Your task to perform on an android device: Add "usb-b" to the cart on bestbuy Image 0: 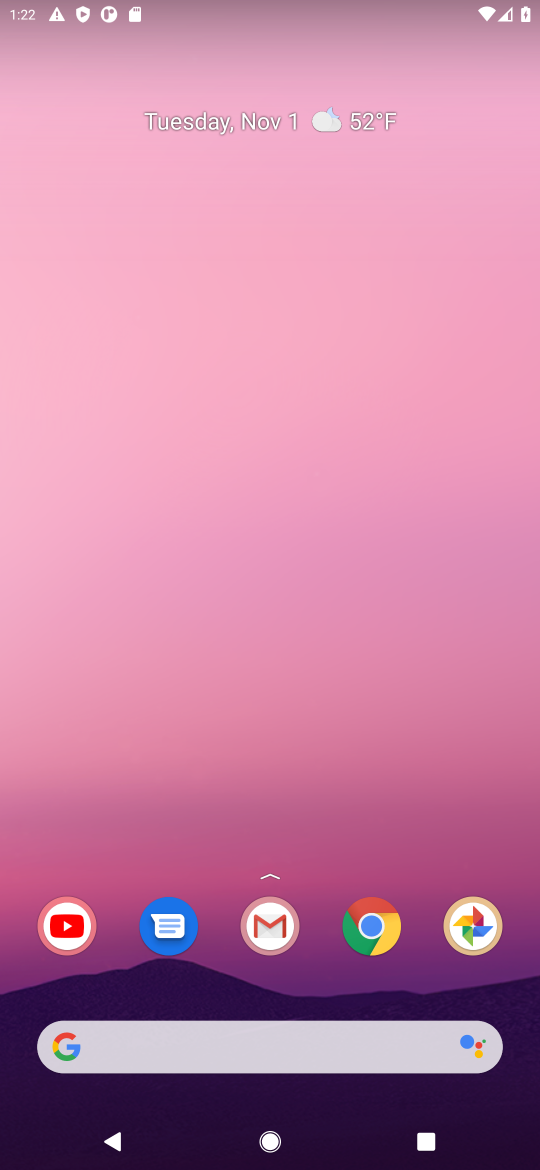
Step 0: click (353, 943)
Your task to perform on an android device: Add "usb-b" to the cart on bestbuy Image 1: 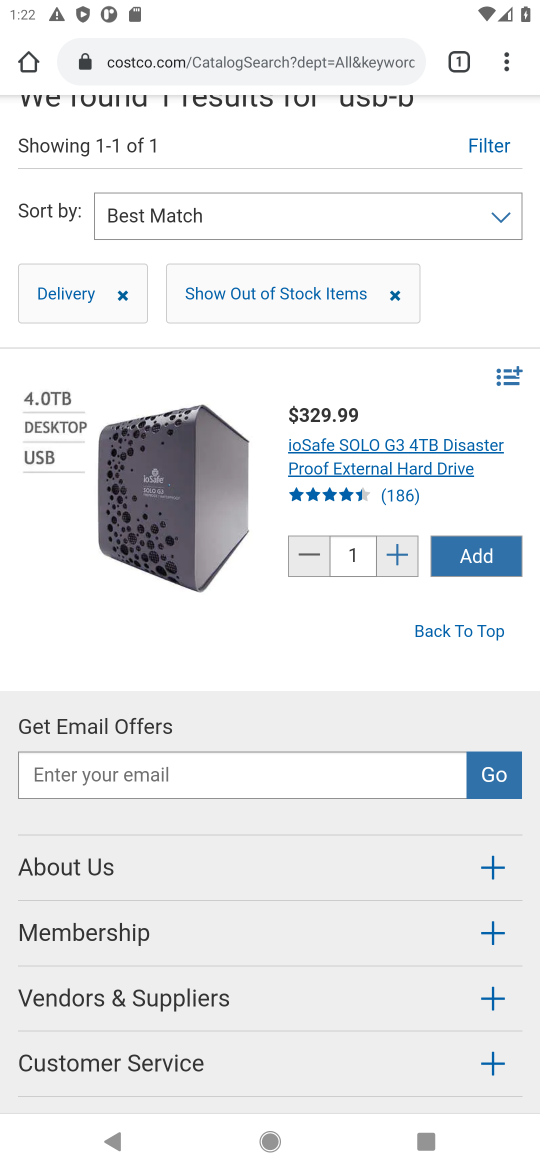
Step 1: click (276, 63)
Your task to perform on an android device: Add "usb-b" to the cart on bestbuy Image 2: 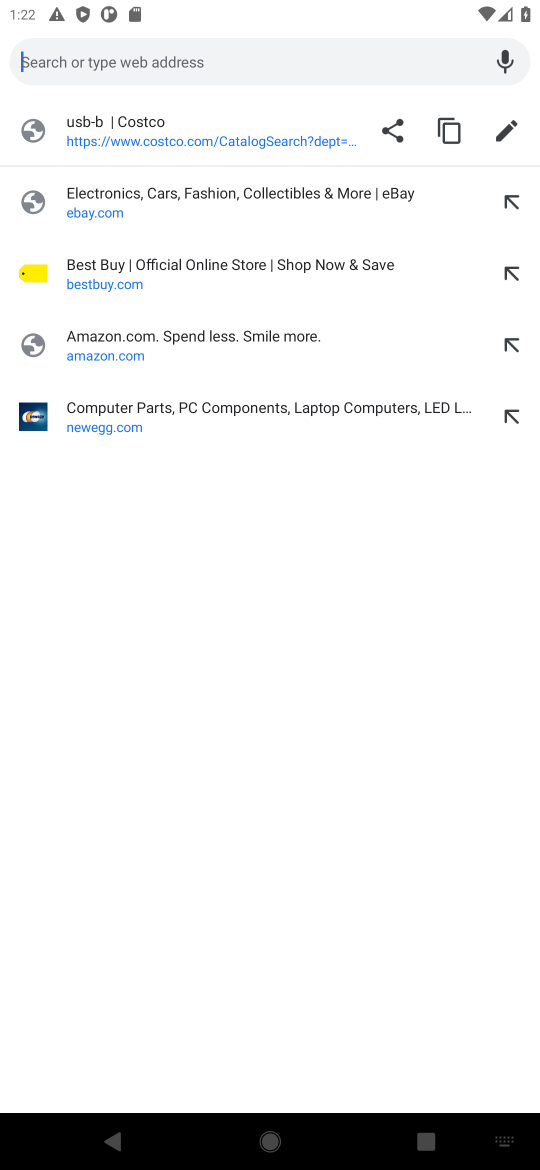
Step 2: type "bestbuy"
Your task to perform on an android device: Add "usb-b" to the cart on bestbuy Image 3: 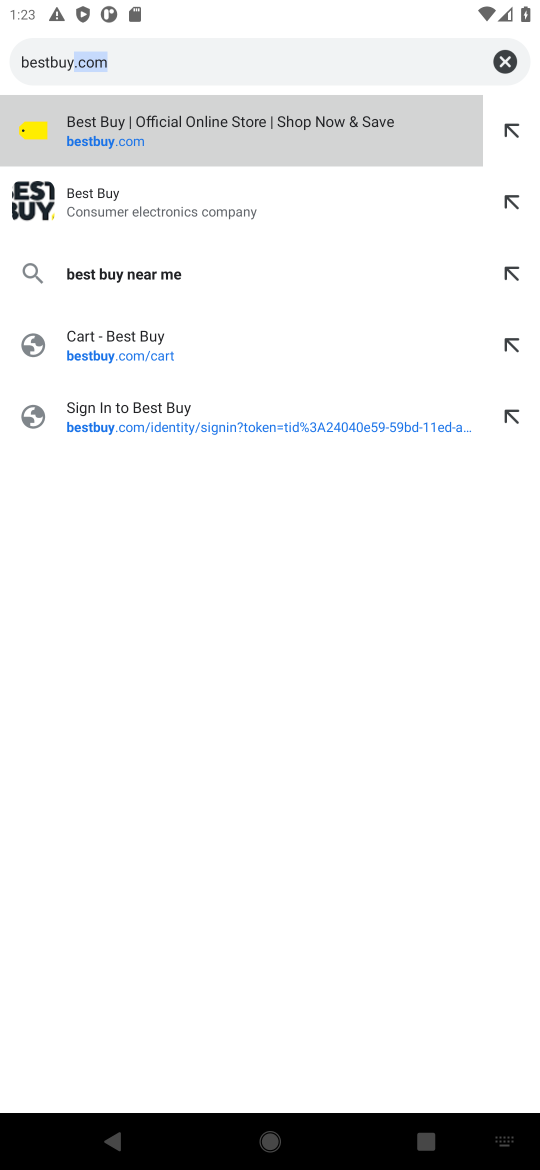
Step 3: press enter
Your task to perform on an android device: Add "usb-b" to the cart on bestbuy Image 4: 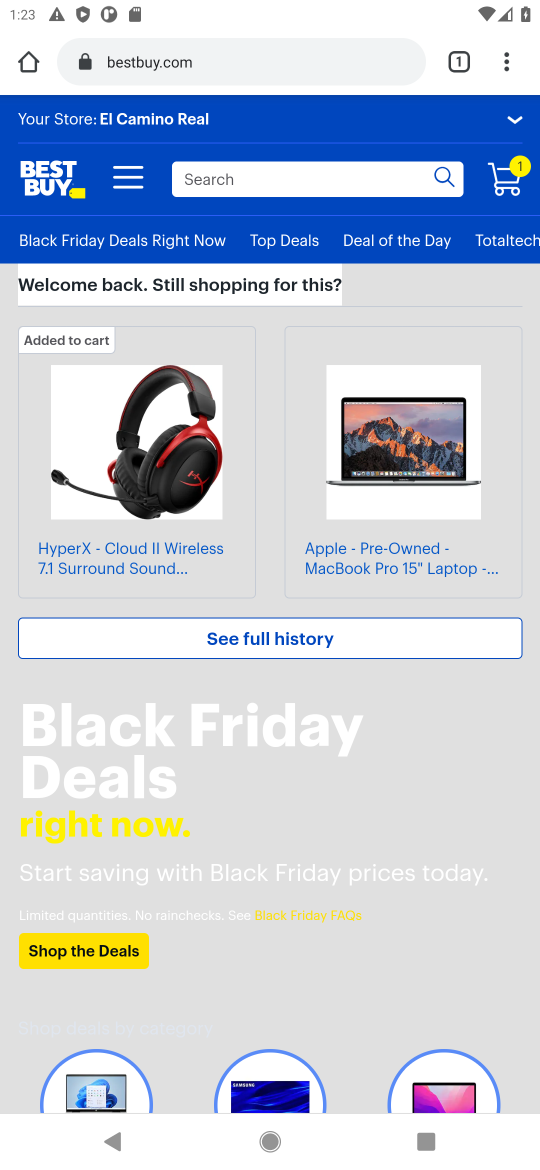
Step 4: click (313, 183)
Your task to perform on an android device: Add "usb-b" to the cart on bestbuy Image 5: 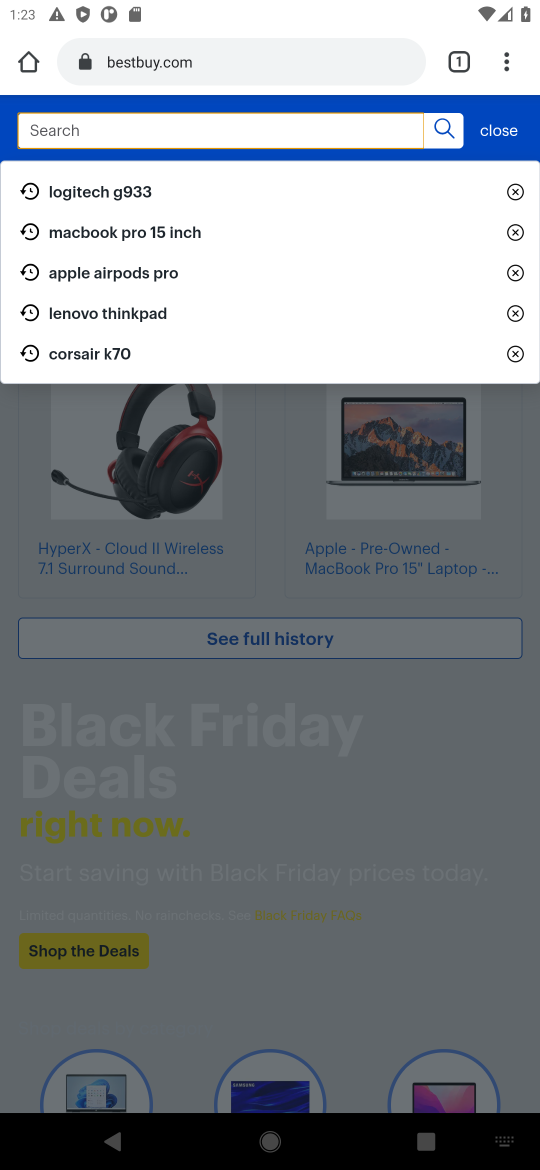
Step 5: type "usb-b"
Your task to perform on an android device: Add "usb-b" to the cart on bestbuy Image 6: 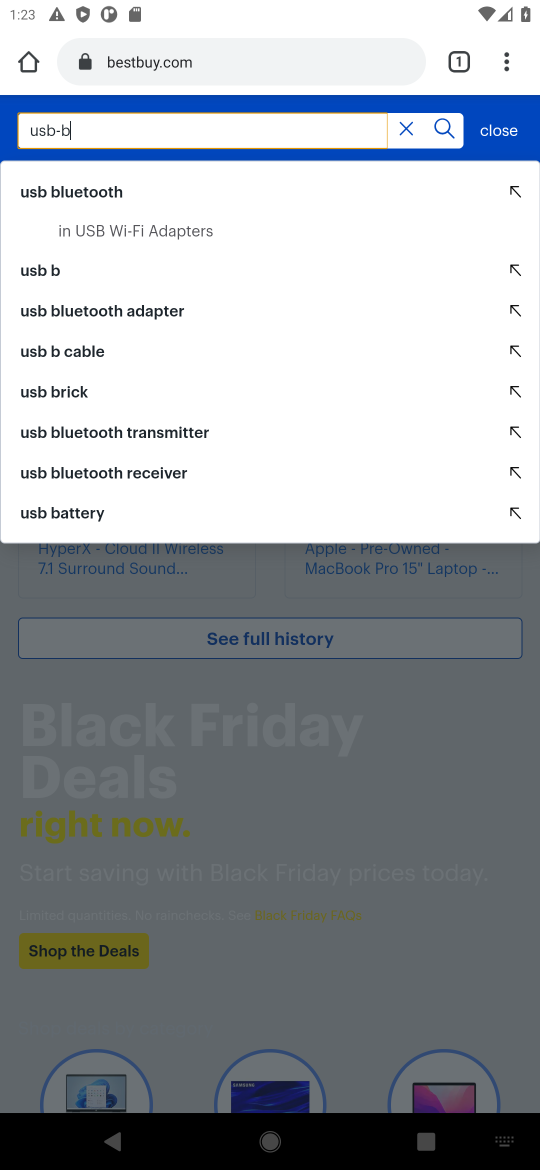
Step 6: press enter
Your task to perform on an android device: Add "usb-b" to the cart on bestbuy Image 7: 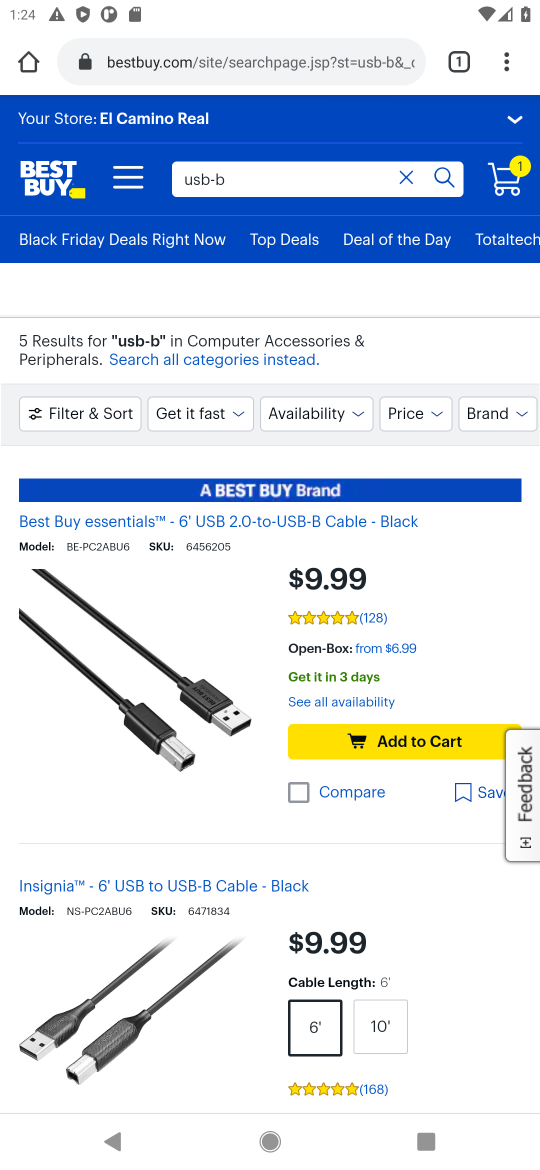
Step 7: drag from (379, 838) to (224, 770)
Your task to perform on an android device: Add "usb-b" to the cart on bestbuy Image 8: 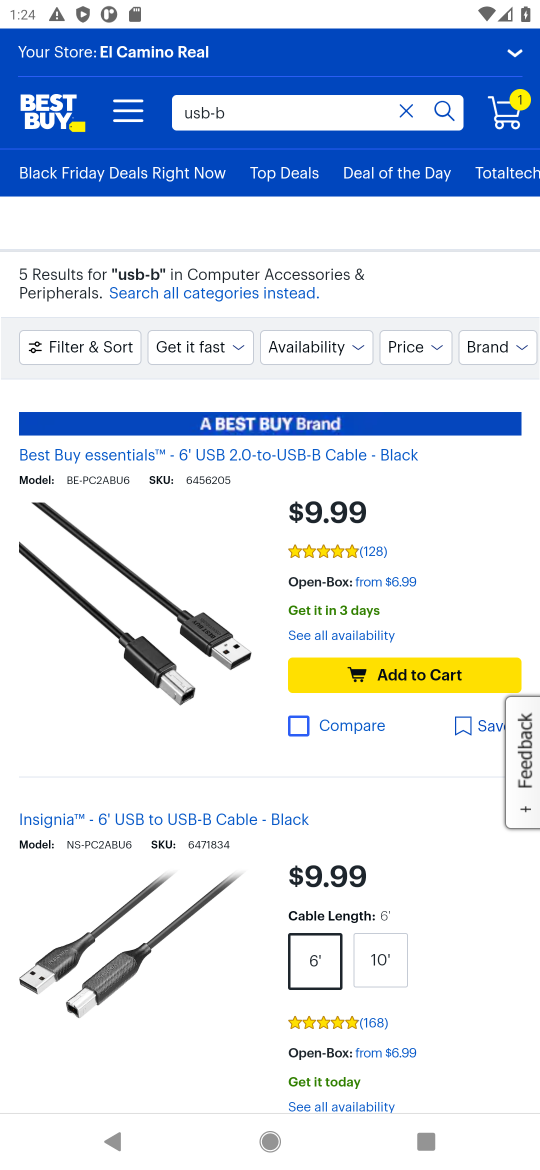
Step 8: click (372, 679)
Your task to perform on an android device: Add "usb-b" to the cart on bestbuy Image 9: 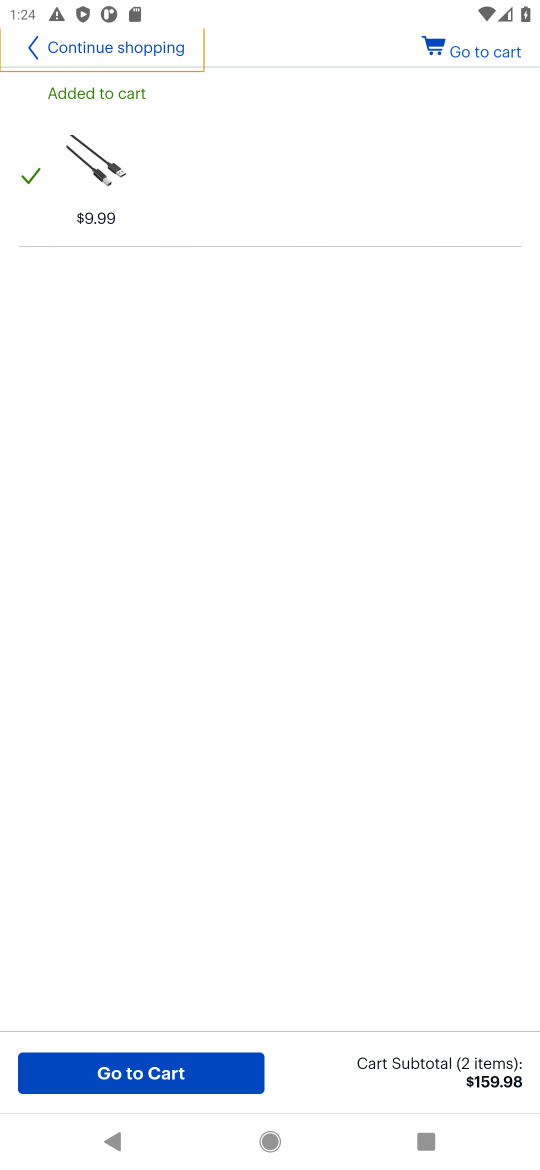
Step 9: task complete